Your task to perform on an android device: What's the weather today? Image 0: 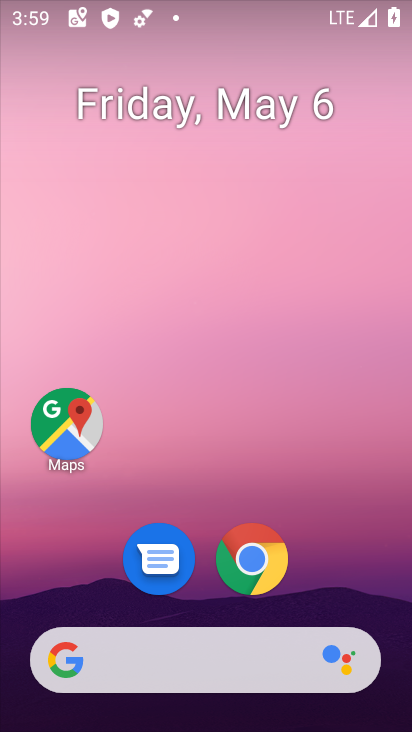
Step 0: drag from (205, 629) to (209, 198)
Your task to perform on an android device: What's the weather today? Image 1: 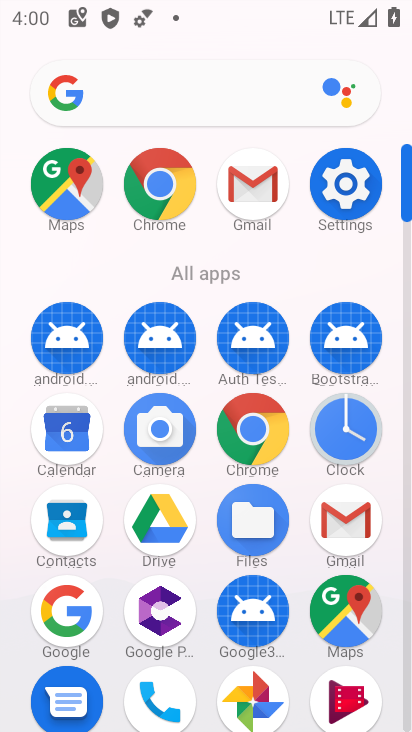
Step 1: click (82, 610)
Your task to perform on an android device: What's the weather today? Image 2: 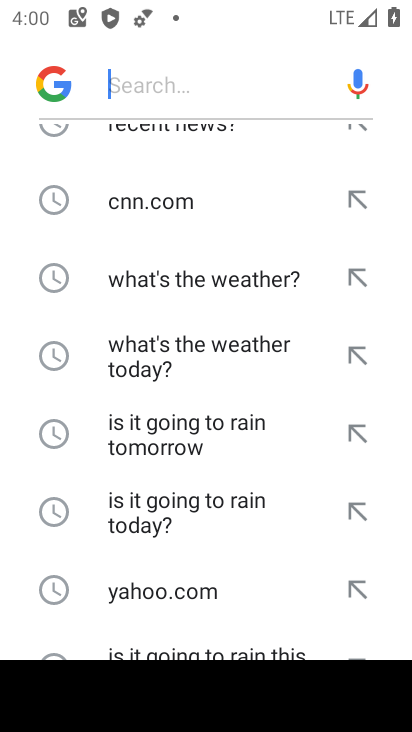
Step 2: drag from (181, 147) to (159, 589)
Your task to perform on an android device: What's the weather today? Image 3: 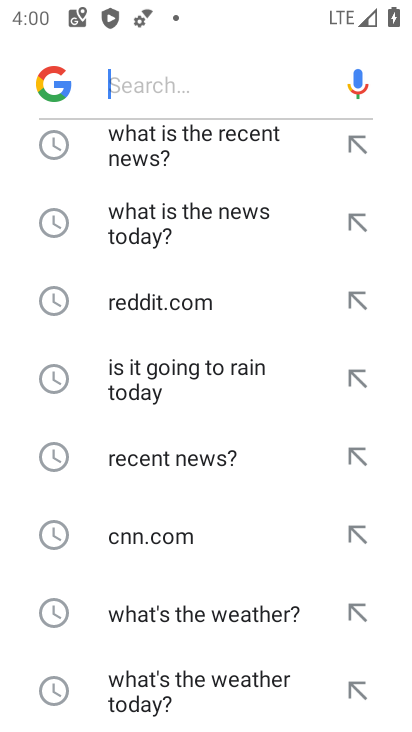
Step 3: drag from (192, 150) to (176, 505)
Your task to perform on an android device: What's the weather today? Image 4: 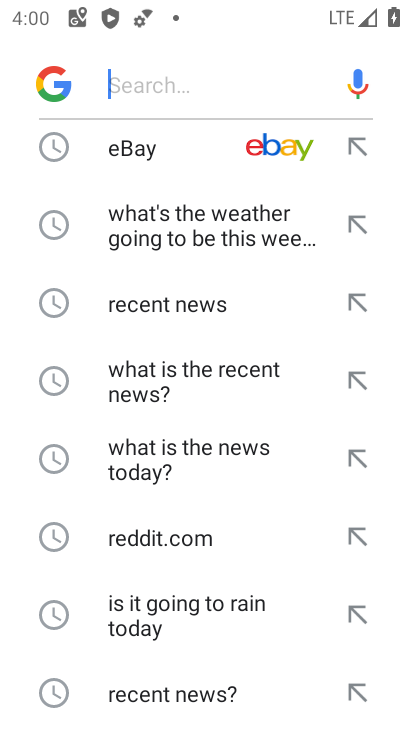
Step 4: drag from (196, 147) to (166, 532)
Your task to perform on an android device: What's the weather today? Image 5: 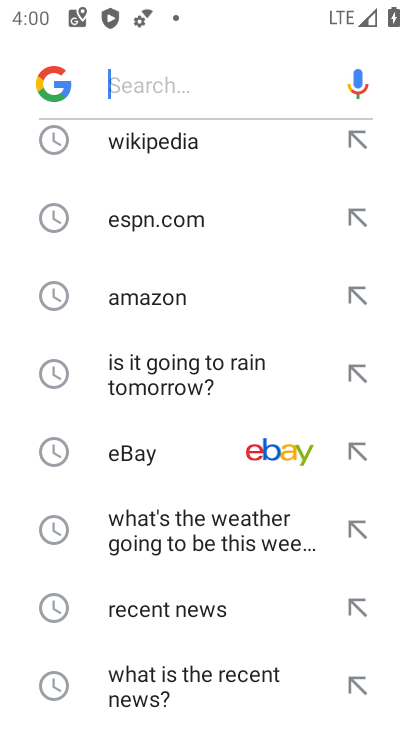
Step 5: drag from (172, 144) to (174, 476)
Your task to perform on an android device: What's the weather today? Image 6: 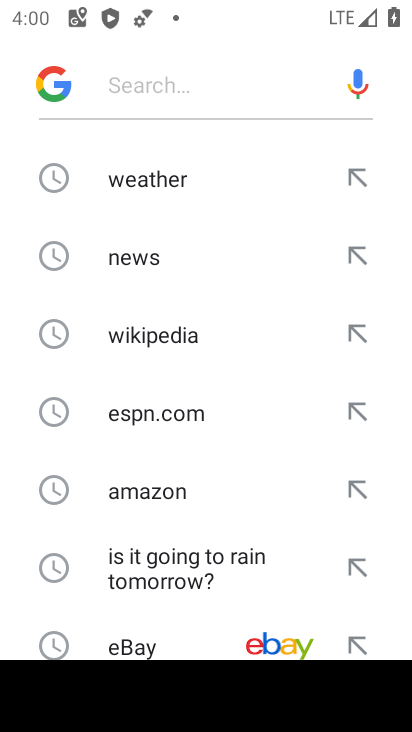
Step 6: click (152, 180)
Your task to perform on an android device: What's the weather today? Image 7: 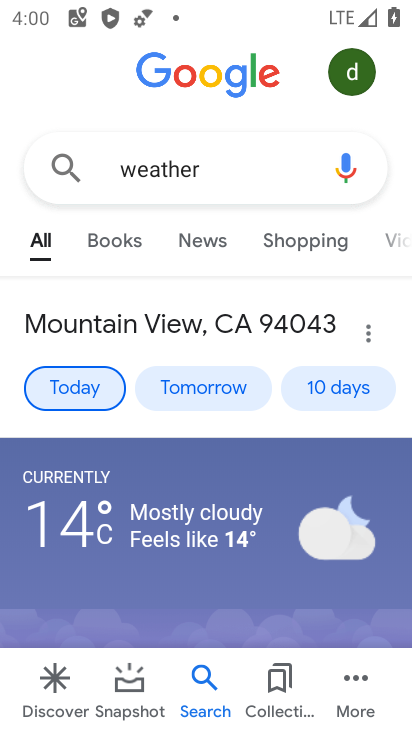
Step 7: task complete